Your task to perform on an android device: Go to calendar. Show me events next week Image 0: 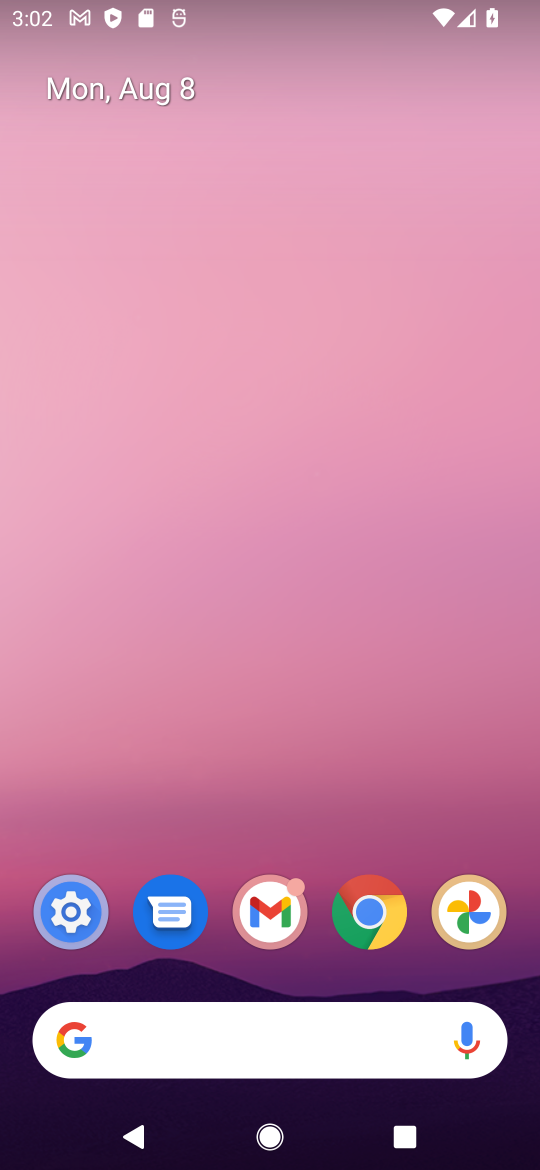
Step 0: drag from (158, 899) to (459, 28)
Your task to perform on an android device: Go to calendar. Show me events next week Image 1: 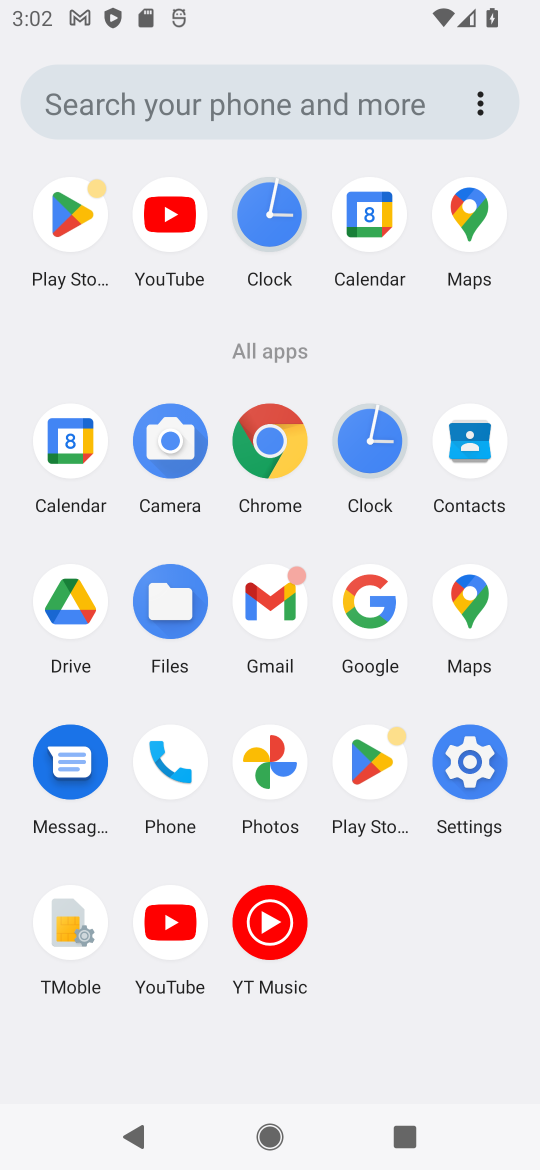
Step 1: click (345, 218)
Your task to perform on an android device: Go to calendar. Show me events next week Image 2: 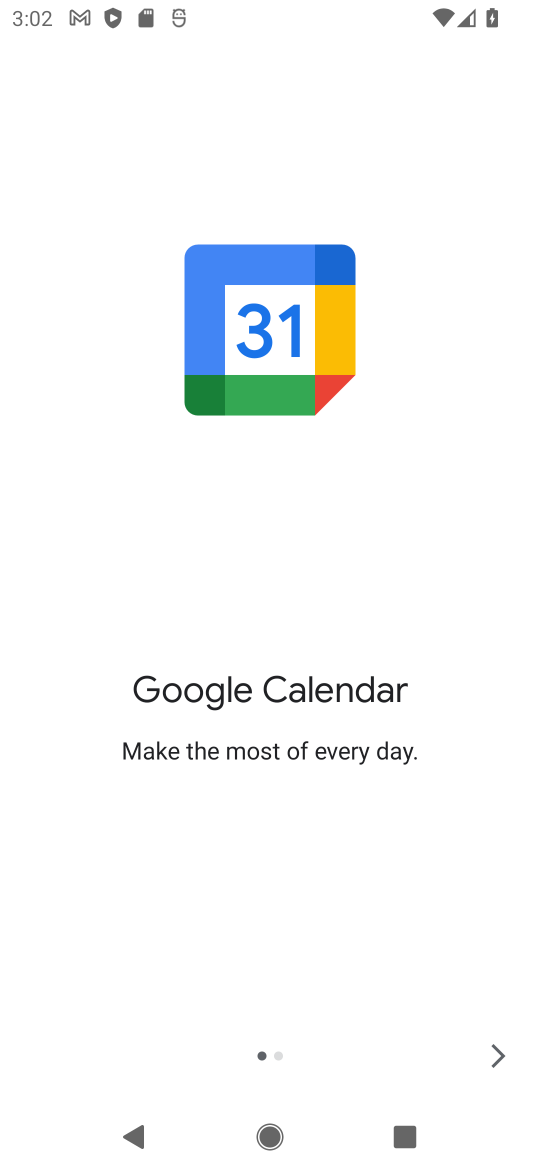
Step 2: click (496, 1060)
Your task to perform on an android device: Go to calendar. Show me events next week Image 3: 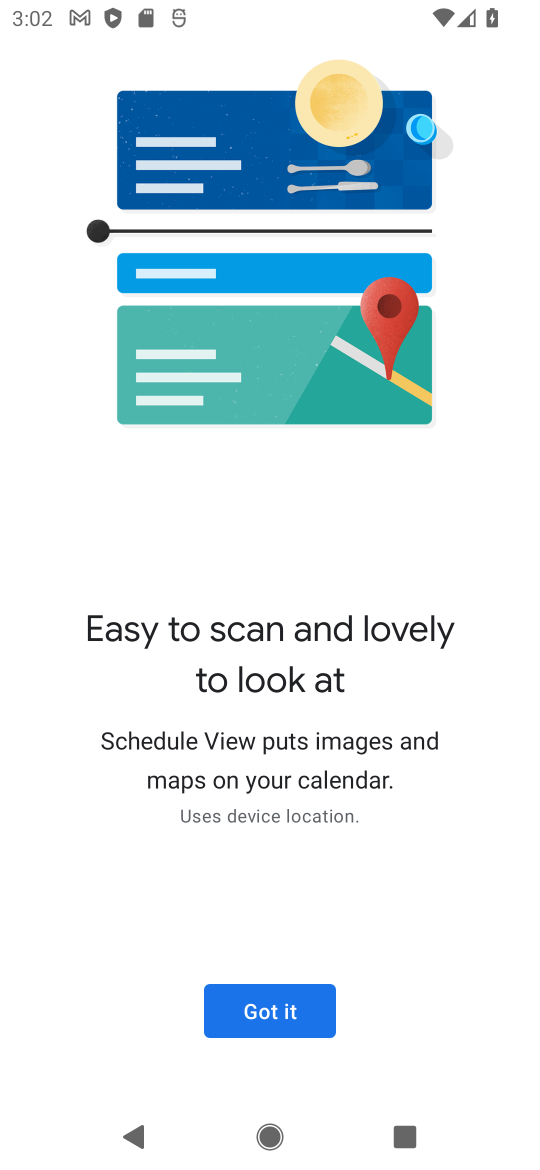
Step 3: click (501, 1037)
Your task to perform on an android device: Go to calendar. Show me events next week Image 4: 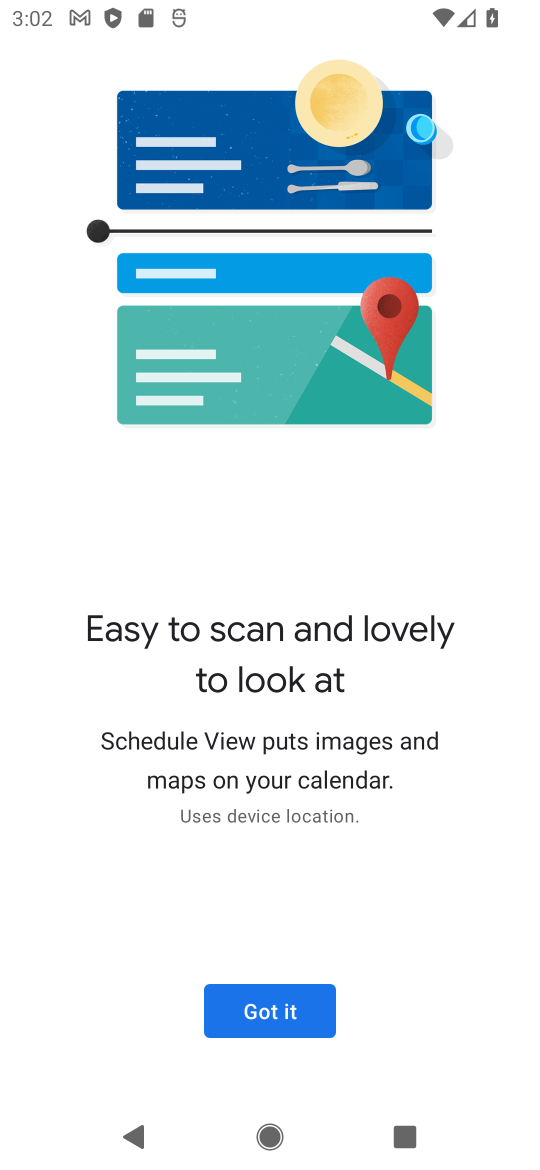
Step 4: click (288, 997)
Your task to perform on an android device: Go to calendar. Show me events next week Image 5: 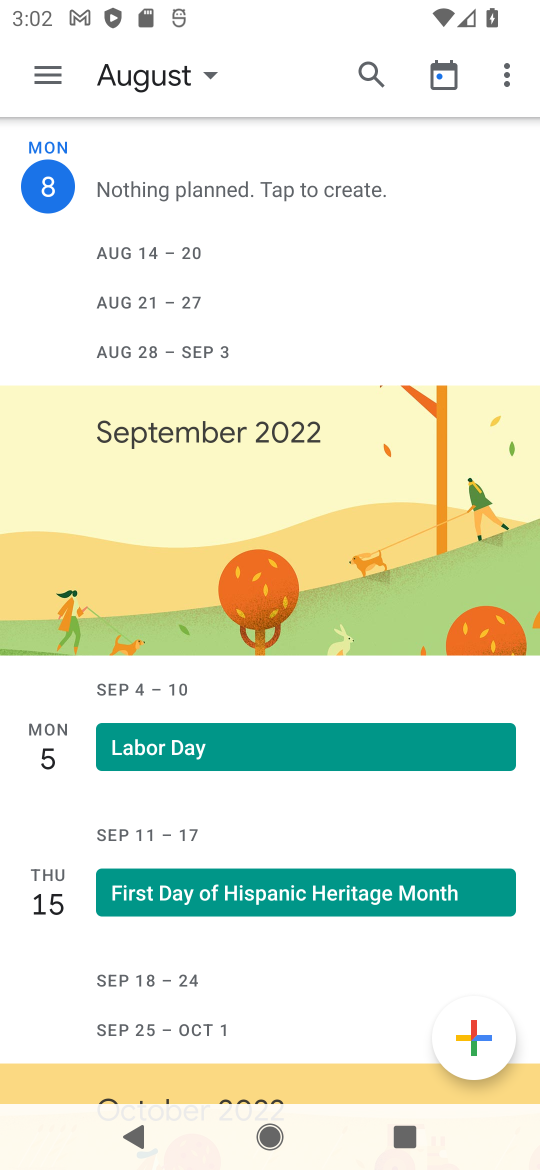
Step 5: click (158, 73)
Your task to perform on an android device: Go to calendar. Show me events next week Image 6: 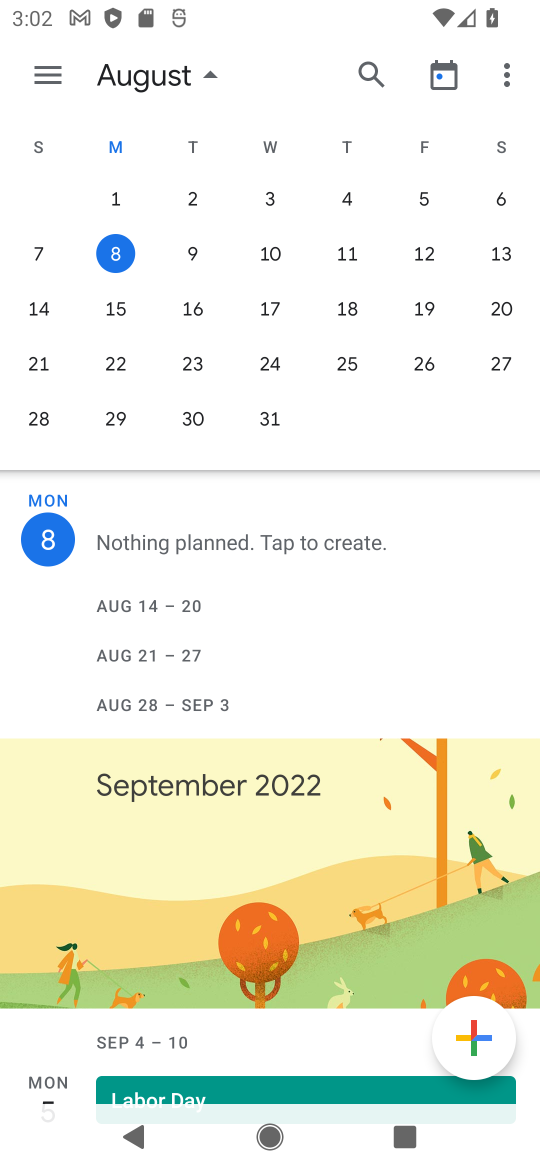
Step 6: drag from (379, 239) to (4, 271)
Your task to perform on an android device: Go to calendar. Show me events next week Image 7: 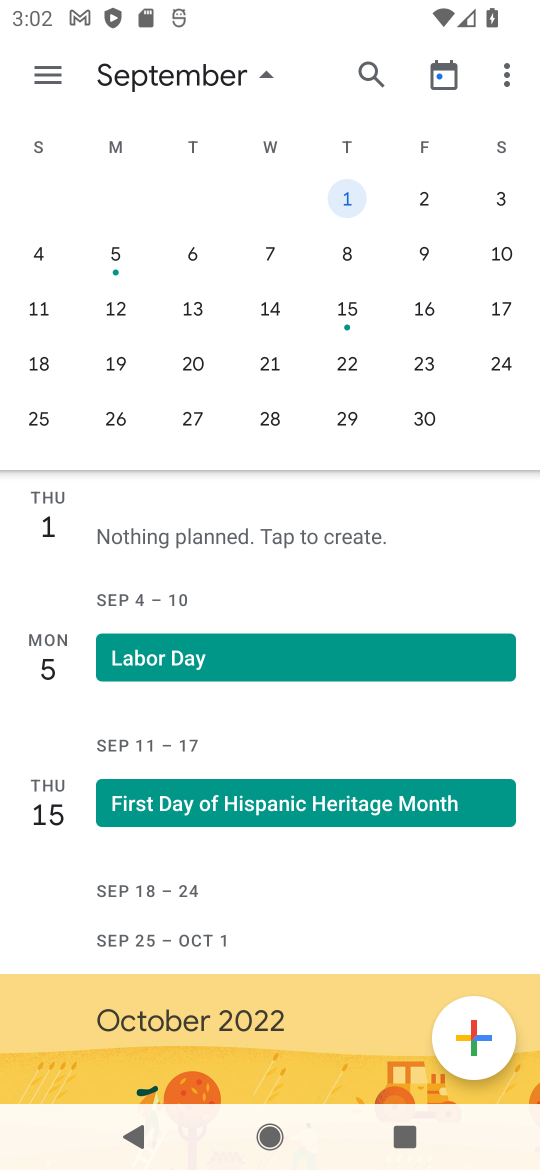
Step 7: drag from (39, 304) to (503, 307)
Your task to perform on an android device: Go to calendar. Show me events next week Image 8: 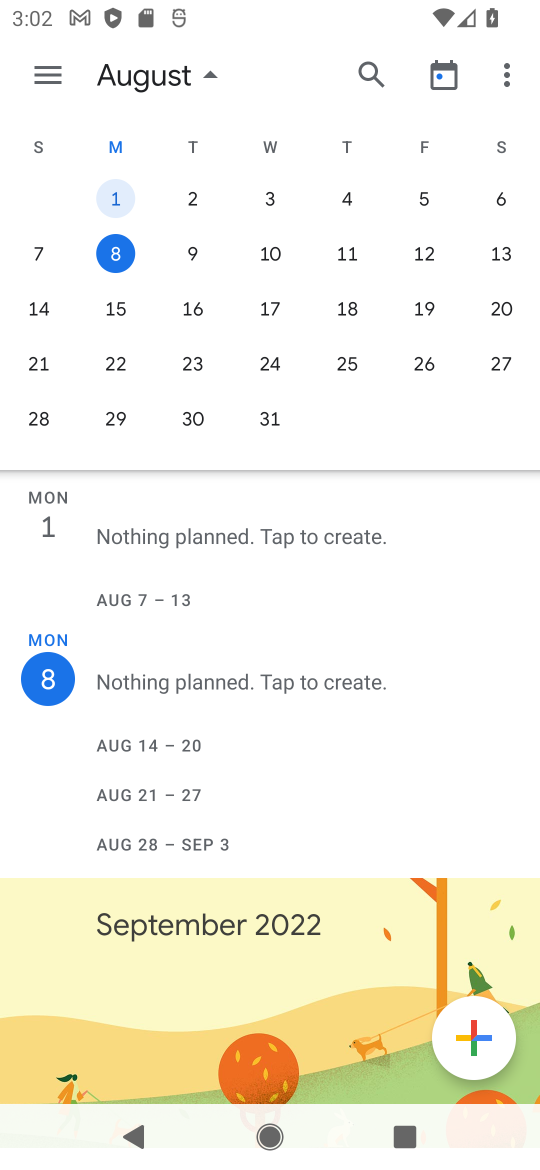
Step 8: click (114, 325)
Your task to perform on an android device: Go to calendar. Show me events next week Image 9: 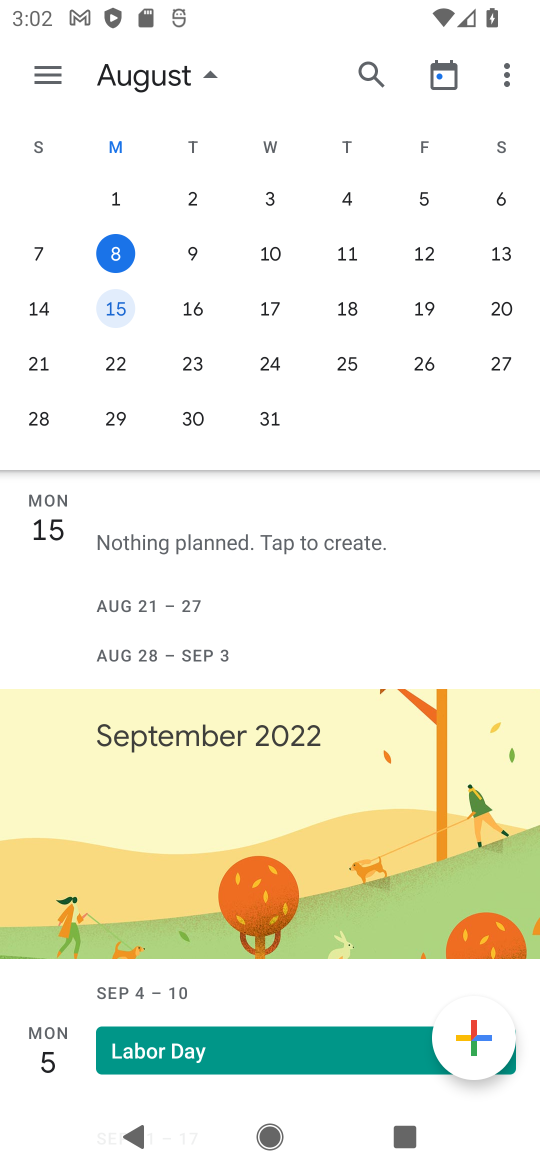
Step 9: task complete